Your task to perform on an android device: toggle notification dots Image 0: 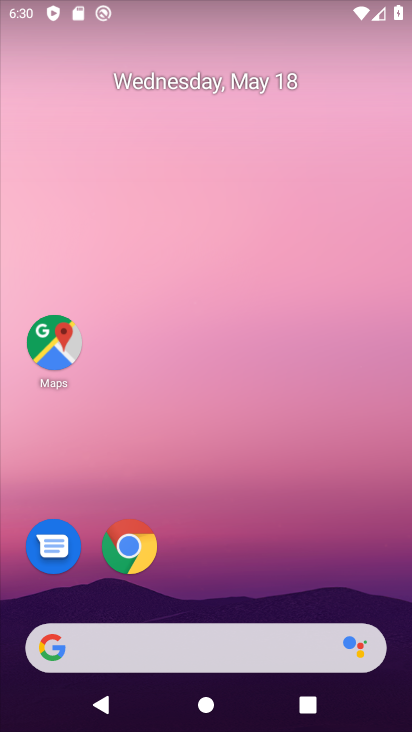
Step 0: drag from (385, 593) to (227, 129)
Your task to perform on an android device: toggle notification dots Image 1: 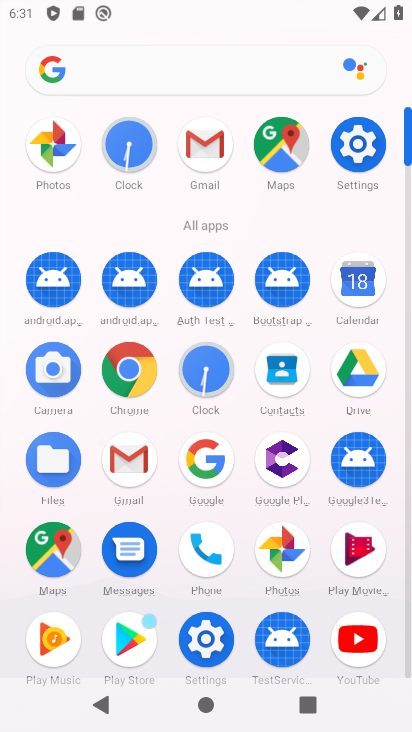
Step 1: click (352, 161)
Your task to perform on an android device: toggle notification dots Image 2: 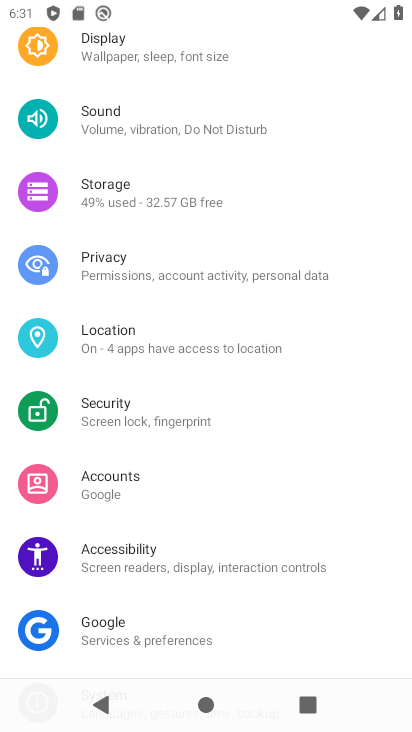
Step 2: drag from (214, 204) to (198, 6)
Your task to perform on an android device: toggle notification dots Image 3: 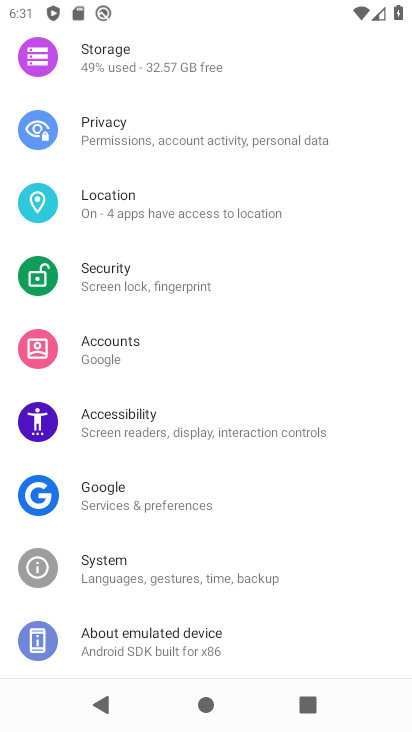
Step 3: drag from (213, 81) to (325, 621)
Your task to perform on an android device: toggle notification dots Image 4: 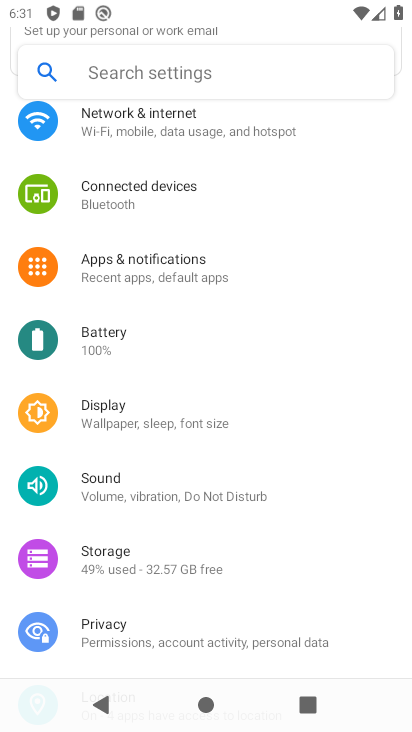
Step 4: click (215, 266)
Your task to perform on an android device: toggle notification dots Image 5: 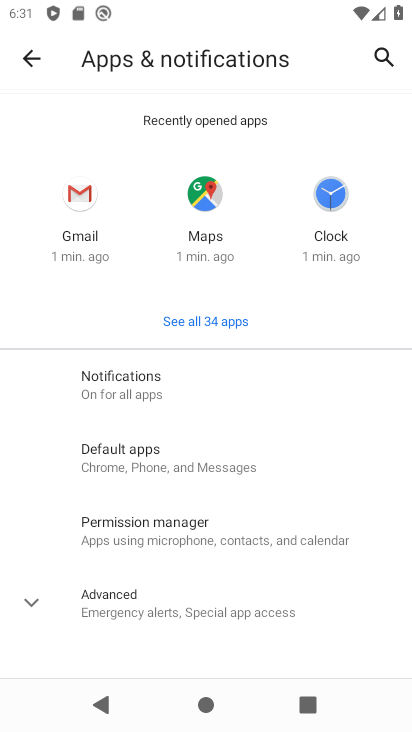
Step 5: click (188, 388)
Your task to perform on an android device: toggle notification dots Image 6: 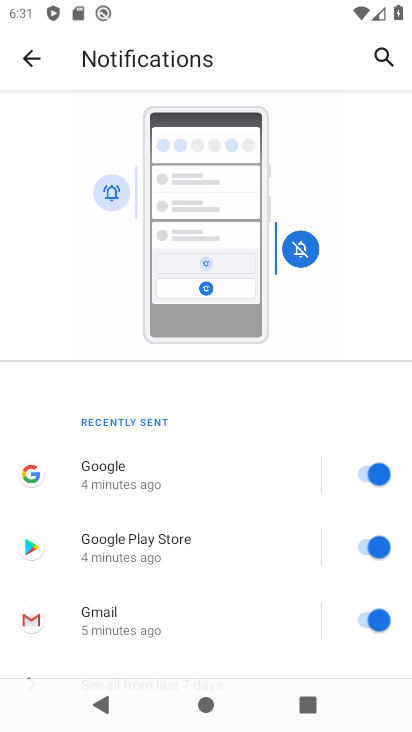
Step 6: drag from (236, 623) to (231, 66)
Your task to perform on an android device: toggle notification dots Image 7: 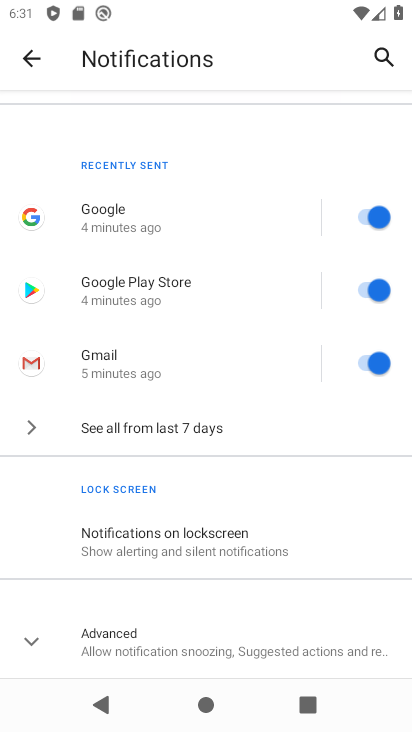
Step 7: click (90, 646)
Your task to perform on an android device: toggle notification dots Image 8: 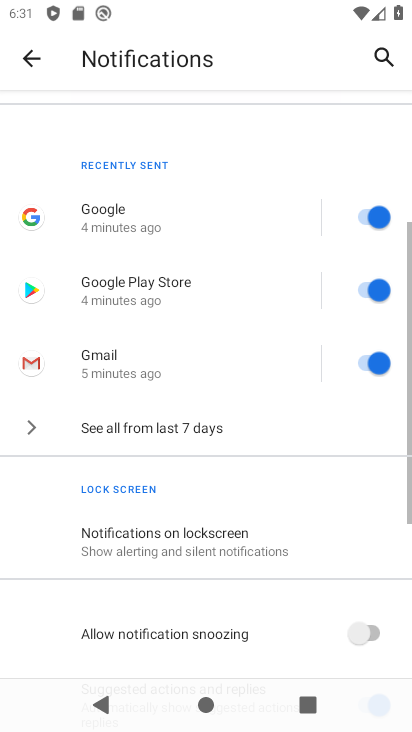
Step 8: drag from (92, 622) to (148, 248)
Your task to perform on an android device: toggle notification dots Image 9: 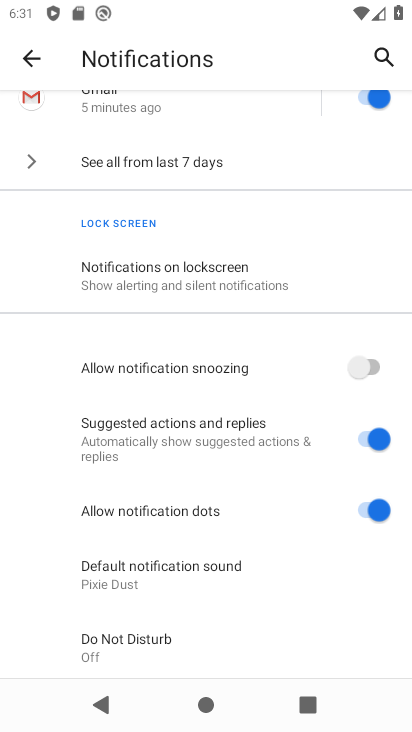
Step 9: click (347, 508)
Your task to perform on an android device: toggle notification dots Image 10: 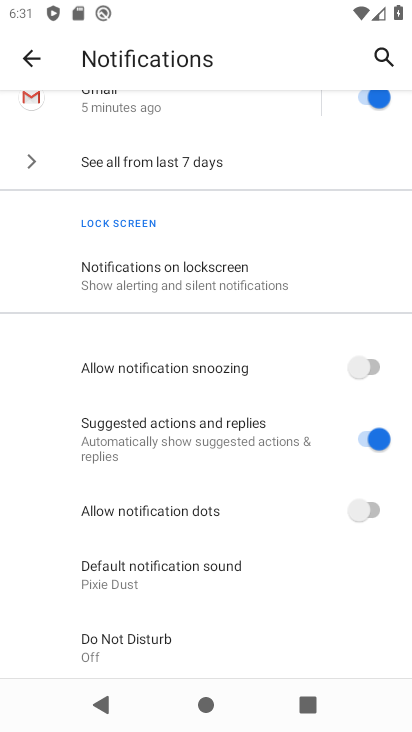
Step 10: task complete